Your task to perform on an android device: turn off notifications settings in the gmail app Image 0: 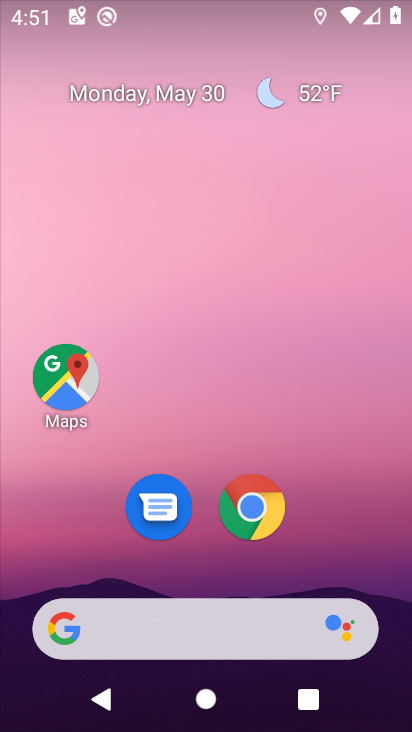
Step 0: drag from (345, 531) to (350, 4)
Your task to perform on an android device: turn off notifications settings in the gmail app Image 1: 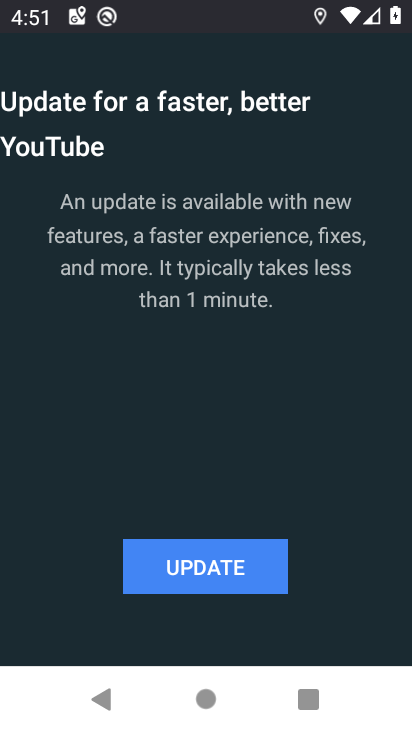
Step 1: press home button
Your task to perform on an android device: turn off notifications settings in the gmail app Image 2: 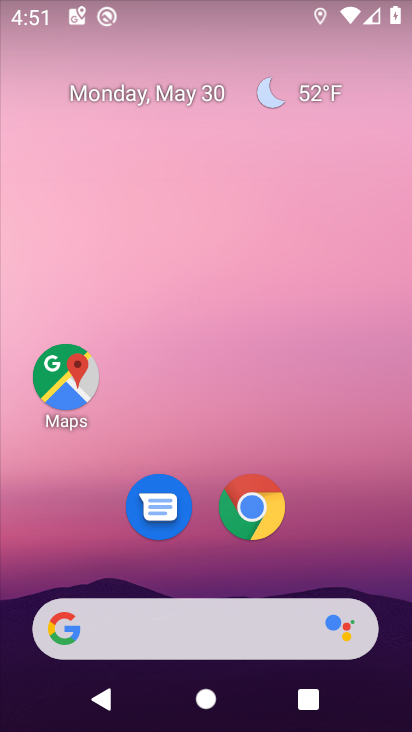
Step 2: drag from (372, 553) to (346, 121)
Your task to perform on an android device: turn off notifications settings in the gmail app Image 3: 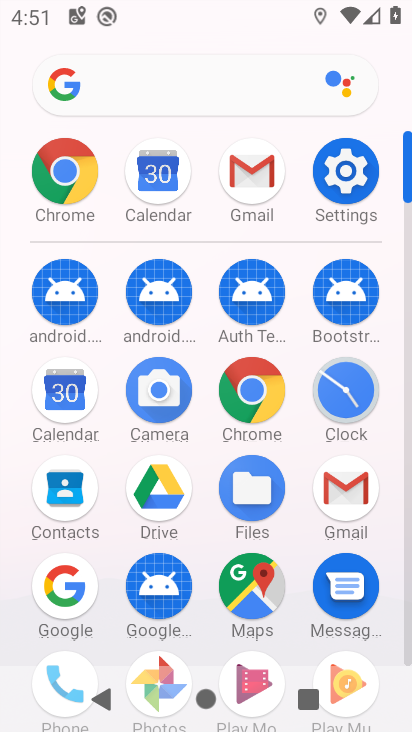
Step 3: click (318, 507)
Your task to perform on an android device: turn off notifications settings in the gmail app Image 4: 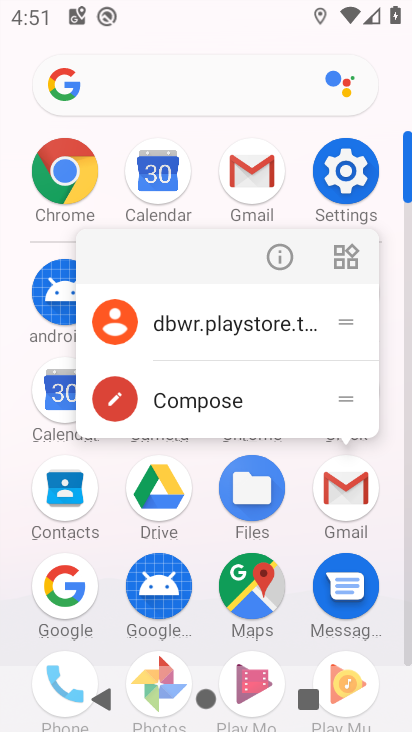
Step 4: click (261, 266)
Your task to perform on an android device: turn off notifications settings in the gmail app Image 5: 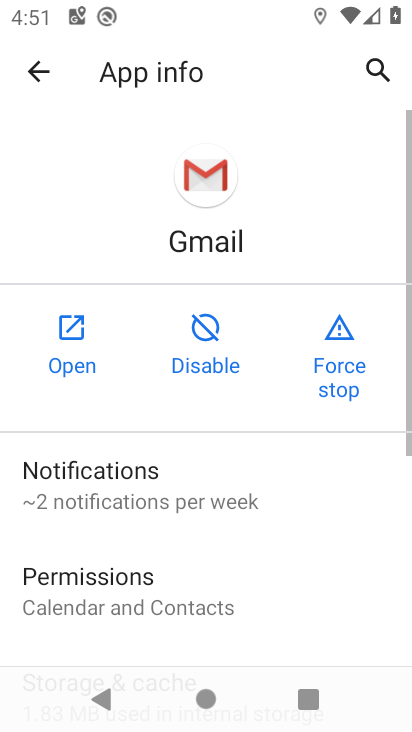
Step 5: click (179, 468)
Your task to perform on an android device: turn off notifications settings in the gmail app Image 6: 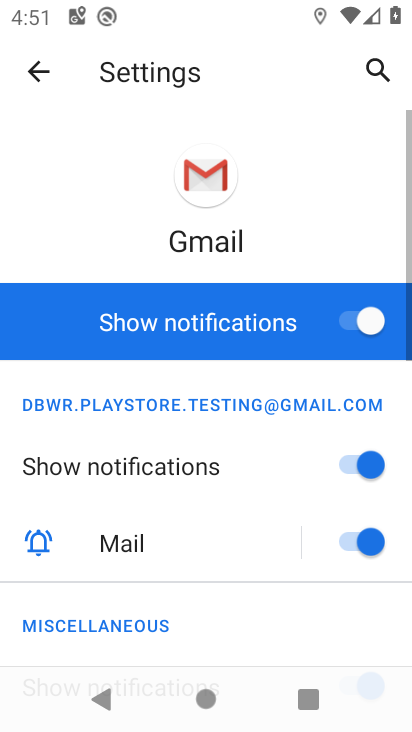
Step 6: click (261, 348)
Your task to perform on an android device: turn off notifications settings in the gmail app Image 7: 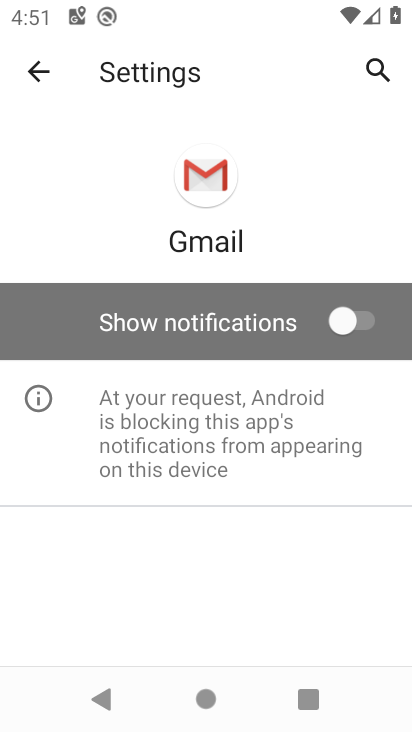
Step 7: task complete